Your task to perform on an android device: turn off data saver in the chrome app Image 0: 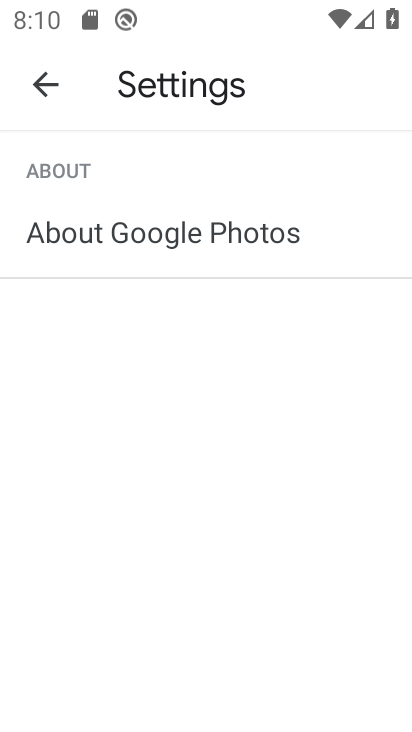
Step 0: press home button
Your task to perform on an android device: turn off data saver in the chrome app Image 1: 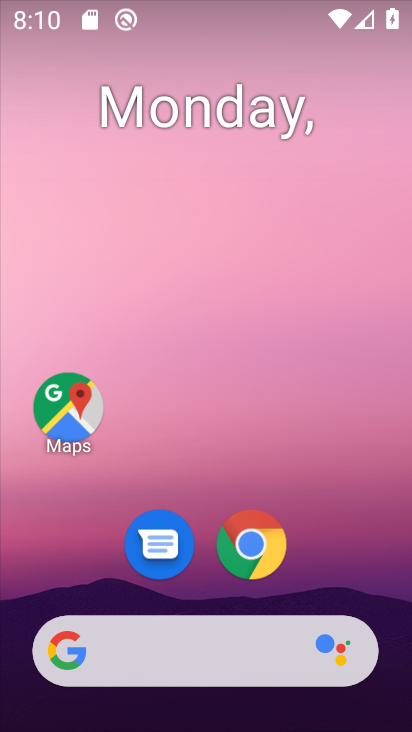
Step 1: click (258, 543)
Your task to perform on an android device: turn off data saver in the chrome app Image 2: 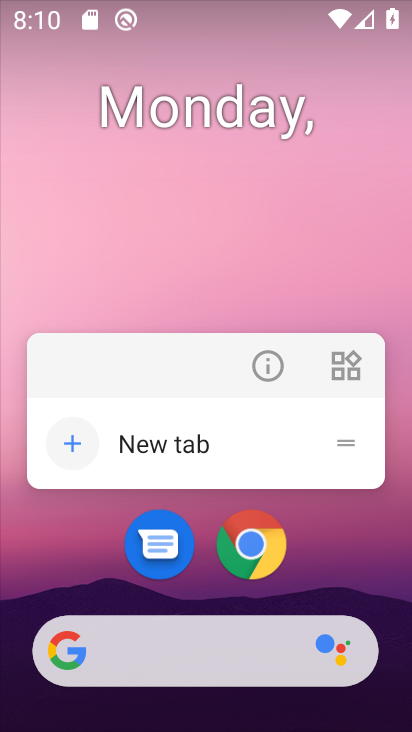
Step 2: click (259, 544)
Your task to perform on an android device: turn off data saver in the chrome app Image 3: 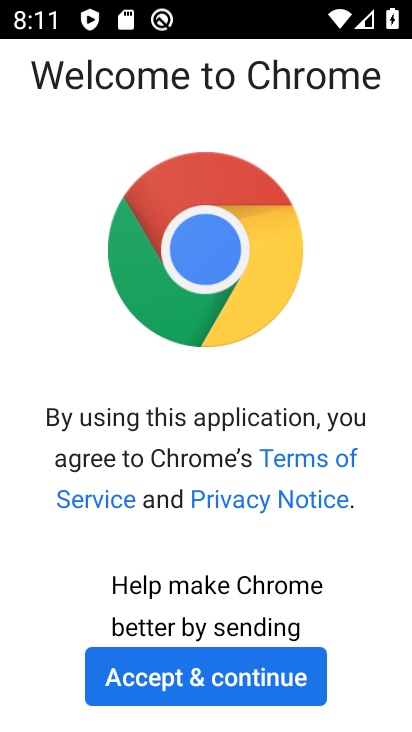
Step 3: click (194, 672)
Your task to perform on an android device: turn off data saver in the chrome app Image 4: 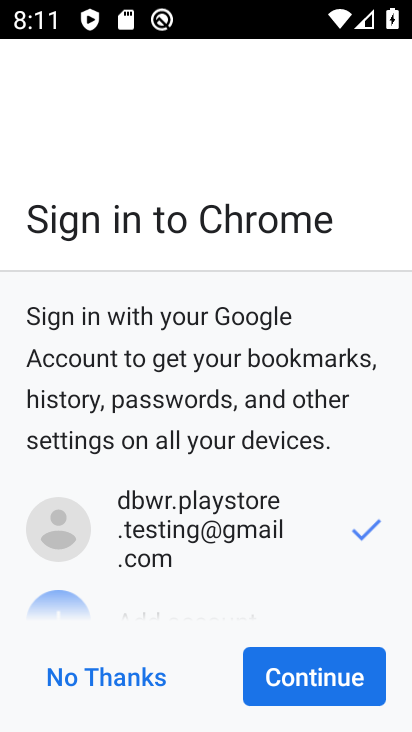
Step 4: click (291, 691)
Your task to perform on an android device: turn off data saver in the chrome app Image 5: 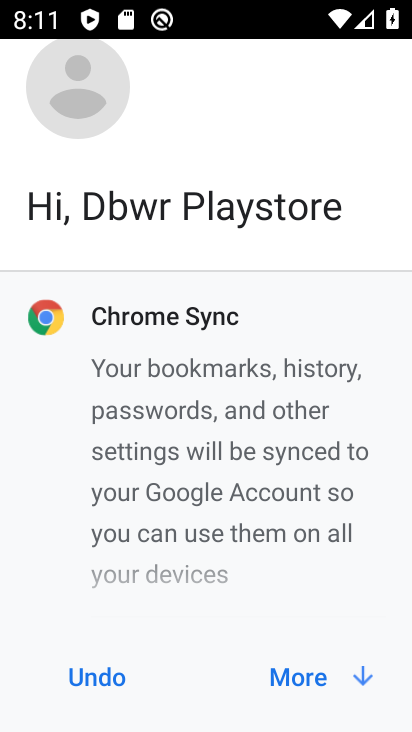
Step 5: click (291, 691)
Your task to perform on an android device: turn off data saver in the chrome app Image 6: 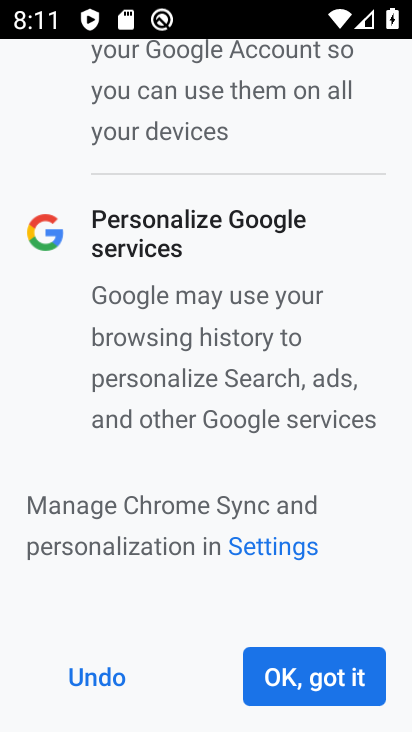
Step 6: click (291, 691)
Your task to perform on an android device: turn off data saver in the chrome app Image 7: 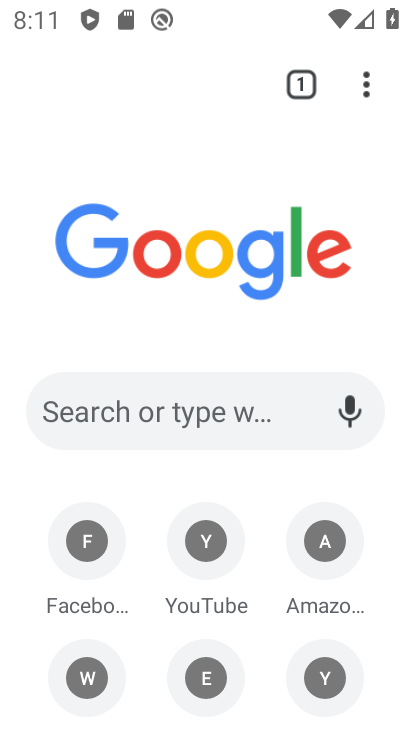
Step 7: click (355, 80)
Your task to perform on an android device: turn off data saver in the chrome app Image 8: 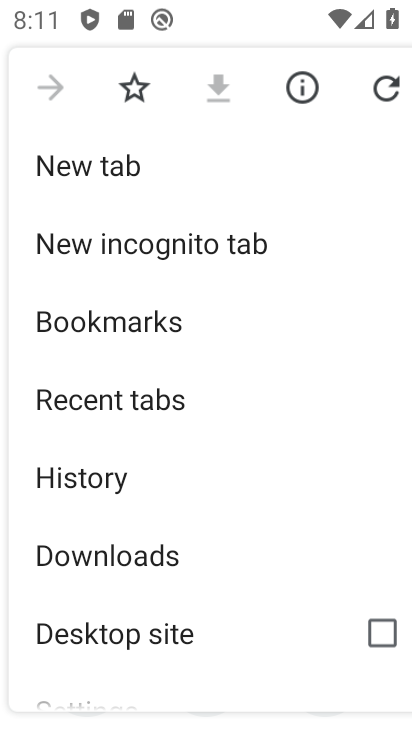
Step 8: drag from (245, 626) to (289, 363)
Your task to perform on an android device: turn off data saver in the chrome app Image 9: 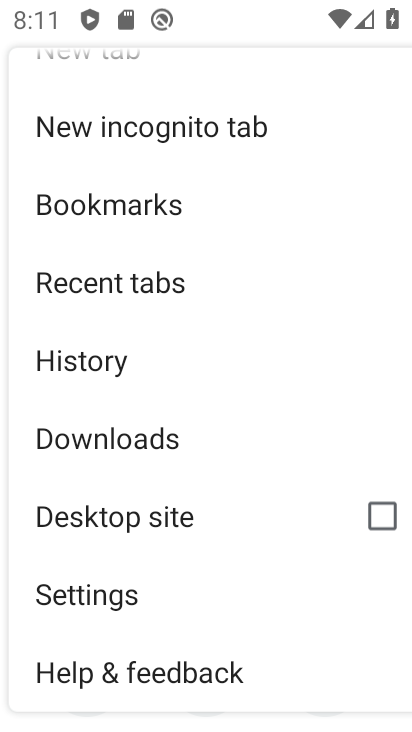
Step 9: click (69, 577)
Your task to perform on an android device: turn off data saver in the chrome app Image 10: 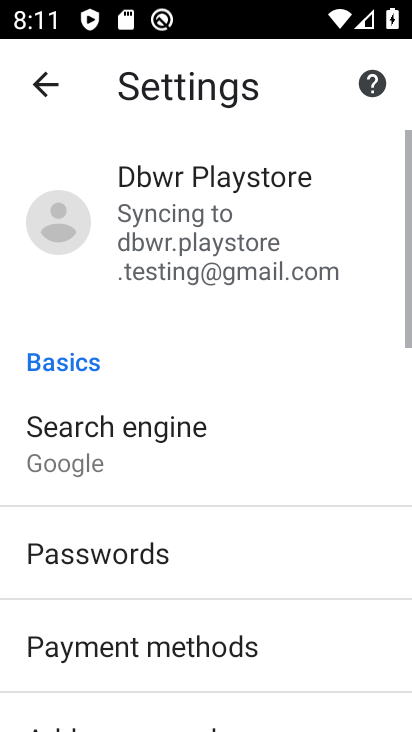
Step 10: drag from (261, 641) to (275, 136)
Your task to perform on an android device: turn off data saver in the chrome app Image 11: 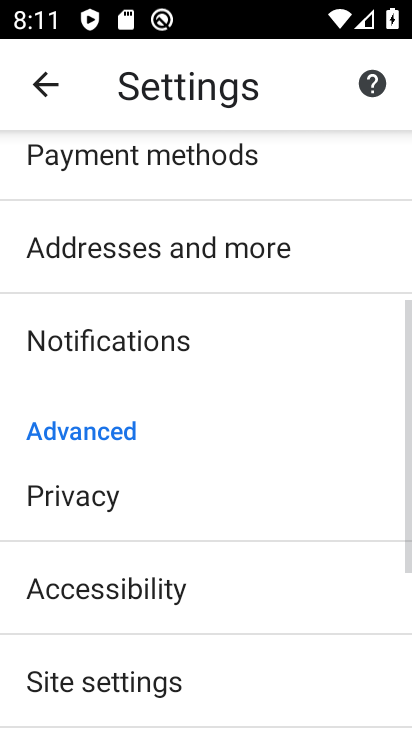
Step 11: drag from (189, 673) to (184, 280)
Your task to perform on an android device: turn off data saver in the chrome app Image 12: 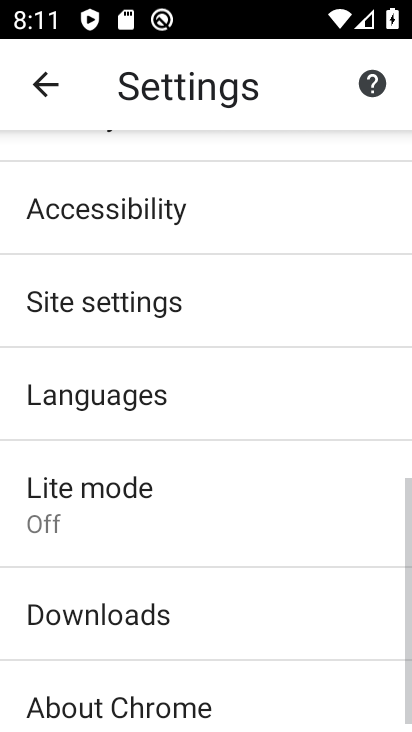
Step 12: click (162, 526)
Your task to perform on an android device: turn off data saver in the chrome app Image 13: 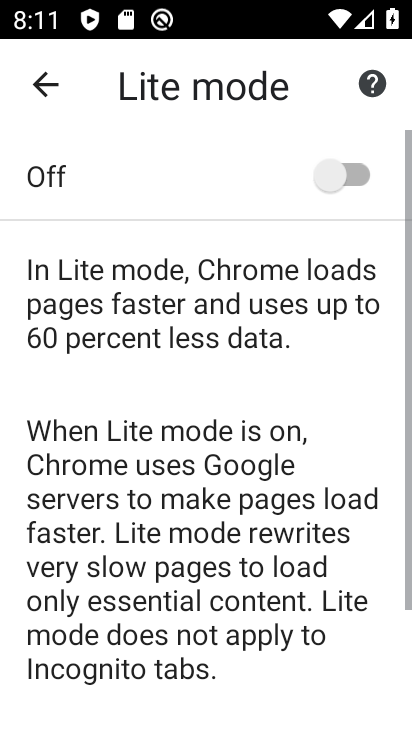
Step 13: task complete